Your task to perform on an android device: manage bookmarks in the chrome app Image 0: 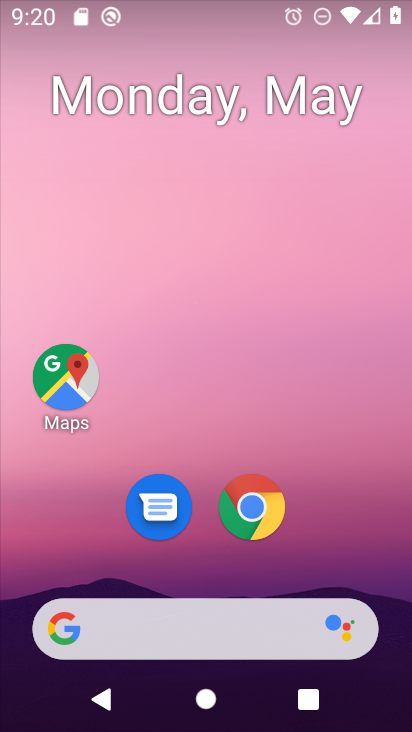
Step 0: click (267, 505)
Your task to perform on an android device: manage bookmarks in the chrome app Image 1: 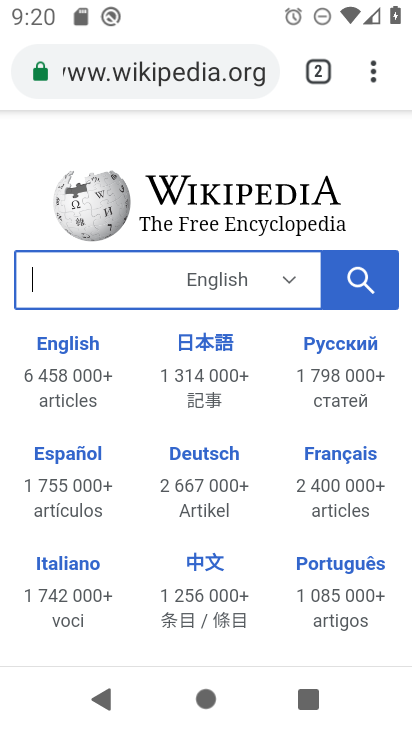
Step 1: click (380, 75)
Your task to perform on an android device: manage bookmarks in the chrome app Image 2: 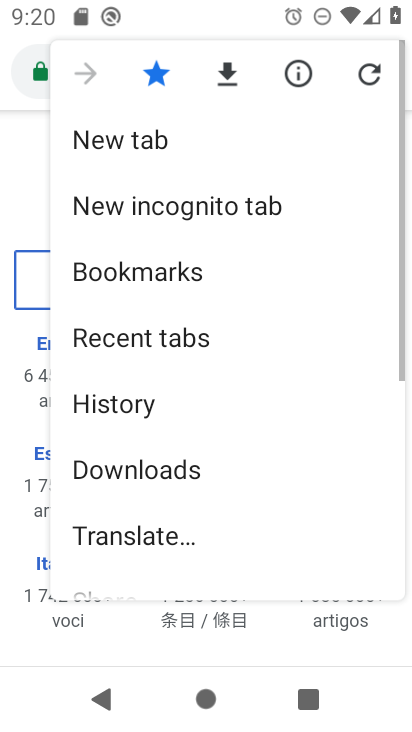
Step 2: drag from (169, 500) to (261, 145)
Your task to perform on an android device: manage bookmarks in the chrome app Image 3: 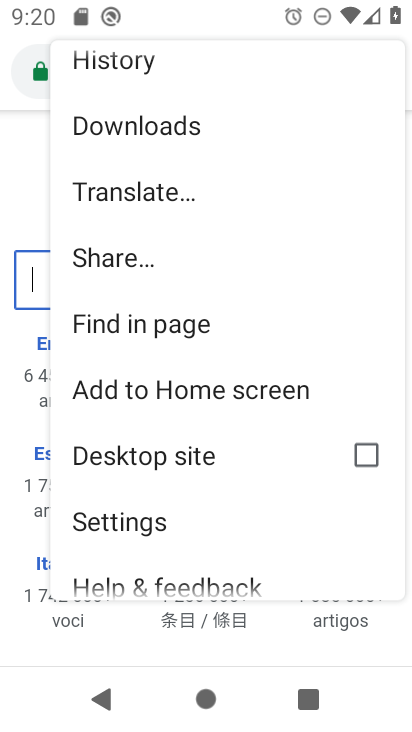
Step 3: click (121, 511)
Your task to perform on an android device: manage bookmarks in the chrome app Image 4: 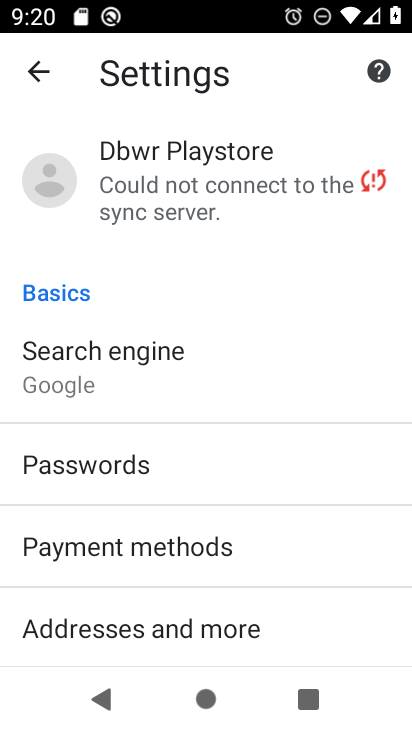
Step 4: drag from (155, 525) to (194, 197)
Your task to perform on an android device: manage bookmarks in the chrome app Image 5: 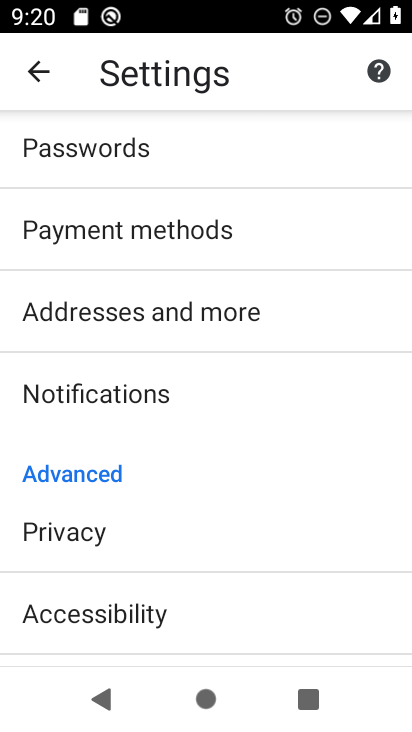
Step 5: click (47, 74)
Your task to perform on an android device: manage bookmarks in the chrome app Image 6: 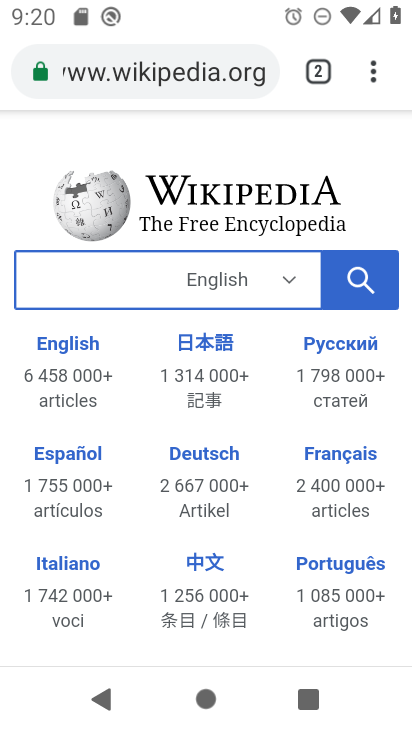
Step 6: click (376, 79)
Your task to perform on an android device: manage bookmarks in the chrome app Image 7: 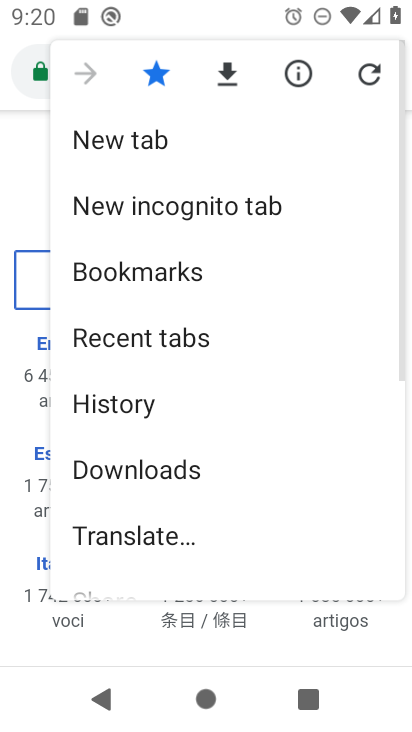
Step 7: click (120, 281)
Your task to perform on an android device: manage bookmarks in the chrome app Image 8: 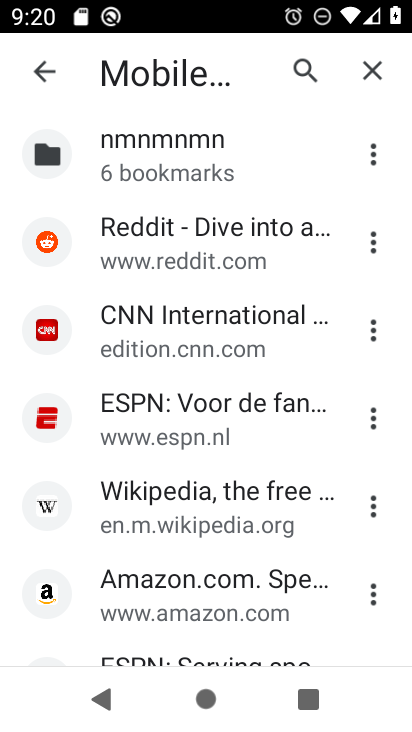
Step 8: drag from (175, 499) to (189, 417)
Your task to perform on an android device: manage bookmarks in the chrome app Image 9: 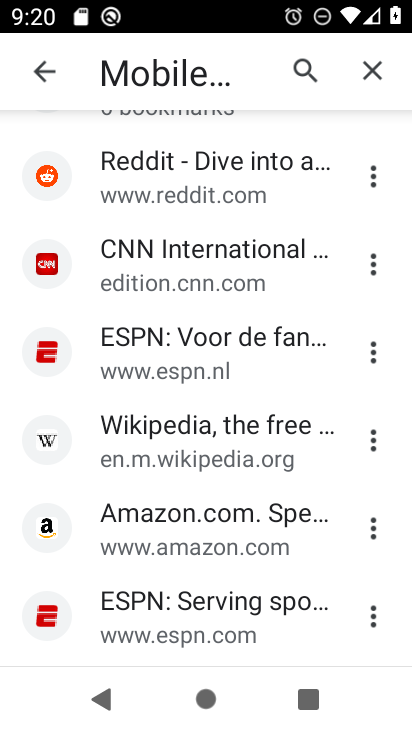
Step 9: click (371, 250)
Your task to perform on an android device: manage bookmarks in the chrome app Image 10: 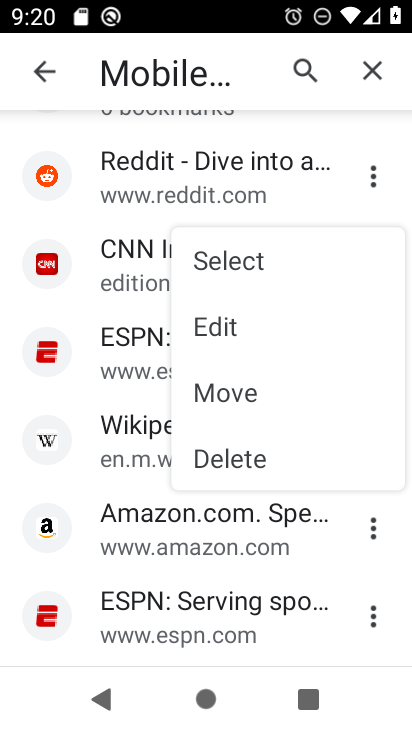
Step 10: click (245, 266)
Your task to perform on an android device: manage bookmarks in the chrome app Image 11: 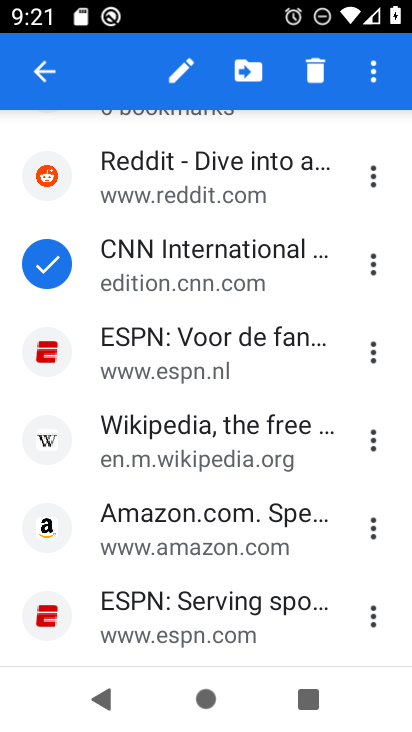
Step 11: click (296, 352)
Your task to perform on an android device: manage bookmarks in the chrome app Image 12: 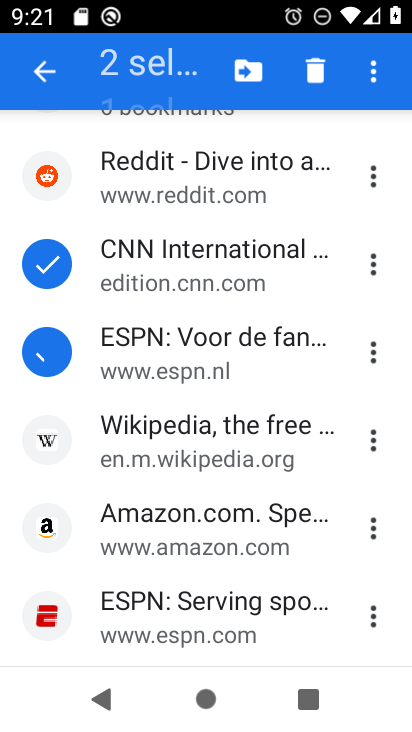
Step 12: click (235, 444)
Your task to perform on an android device: manage bookmarks in the chrome app Image 13: 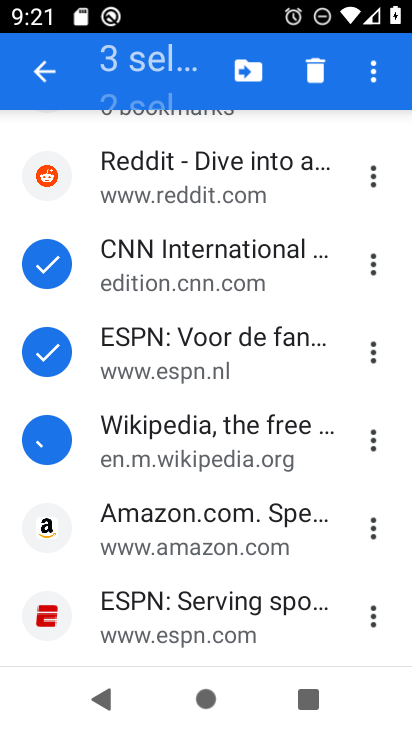
Step 13: click (176, 532)
Your task to perform on an android device: manage bookmarks in the chrome app Image 14: 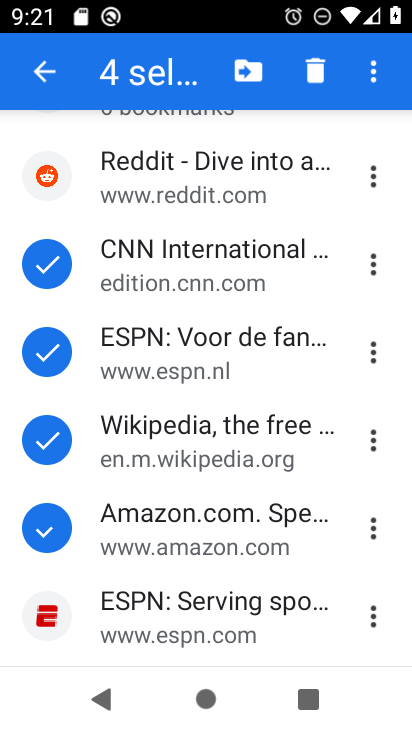
Step 14: click (143, 603)
Your task to perform on an android device: manage bookmarks in the chrome app Image 15: 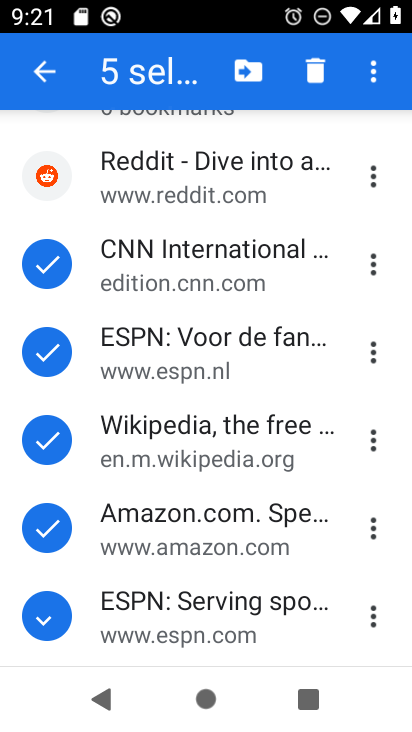
Step 15: drag from (140, 615) to (208, 246)
Your task to perform on an android device: manage bookmarks in the chrome app Image 16: 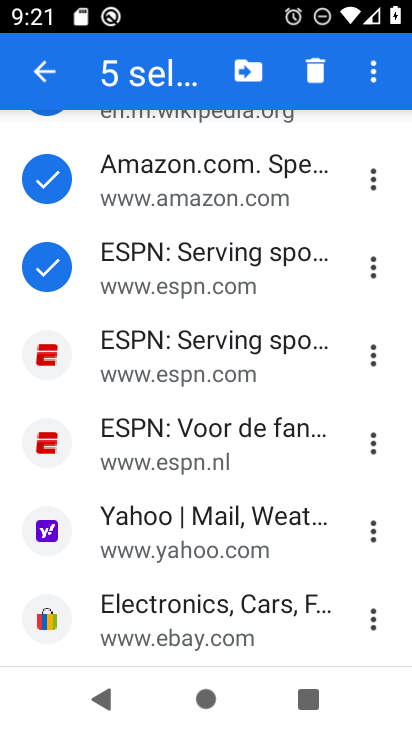
Step 16: click (162, 351)
Your task to perform on an android device: manage bookmarks in the chrome app Image 17: 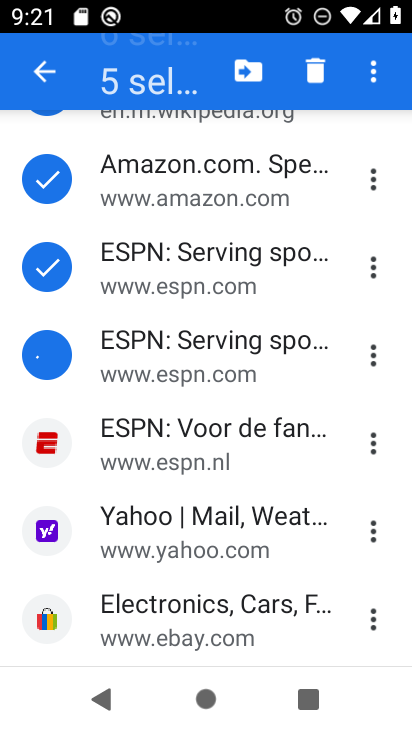
Step 17: click (142, 444)
Your task to perform on an android device: manage bookmarks in the chrome app Image 18: 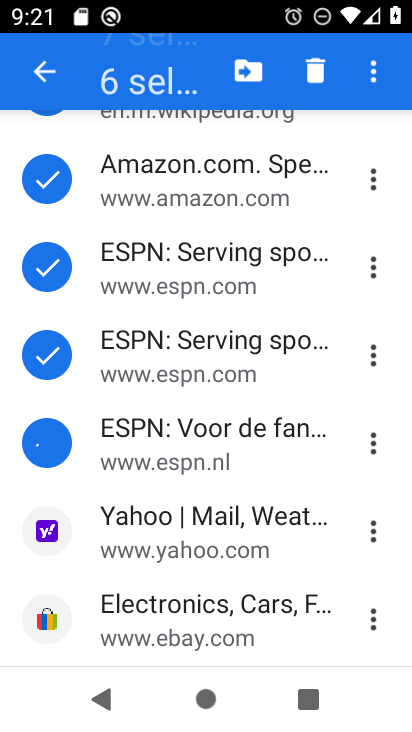
Step 18: click (131, 515)
Your task to perform on an android device: manage bookmarks in the chrome app Image 19: 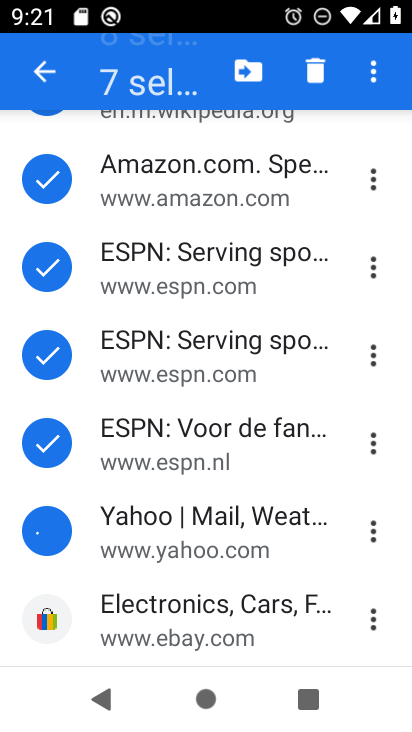
Step 19: click (112, 615)
Your task to perform on an android device: manage bookmarks in the chrome app Image 20: 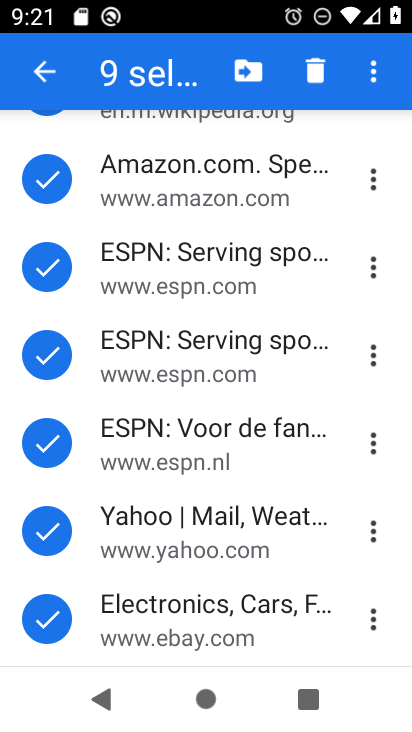
Step 20: click (260, 77)
Your task to perform on an android device: manage bookmarks in the chrome app Image 21: 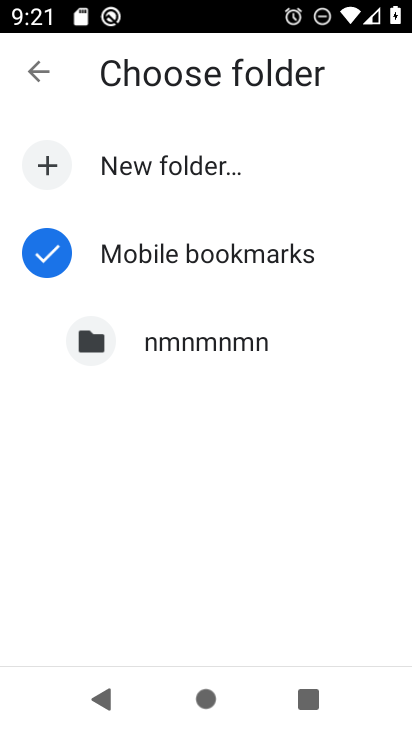
Step 21: click (196, 338)
Your task to perform on an android device: manage bookmarks in the chrome app Image 22: 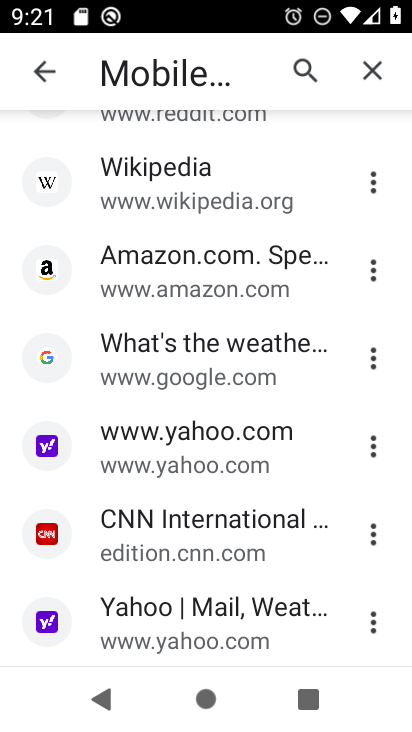
Step 22: task complete